Your task to perform on an android device: How much does a 3 bedroom apartment rent for in Austin? Image 0: 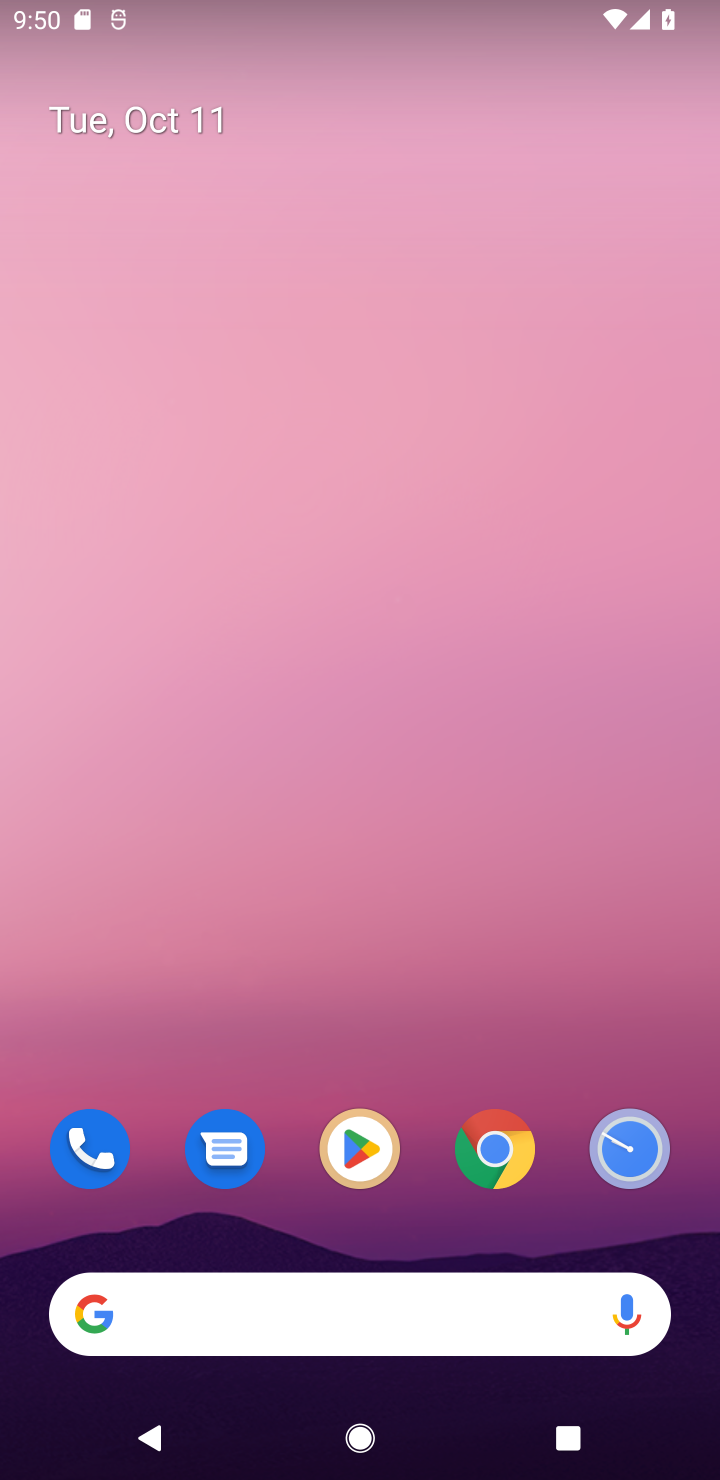
Step 0: drag from (379, 711) to (318, 263)
Your task to perform on an android device: How much does a 3 bedroom apartment rent for in Austin? Image 1: 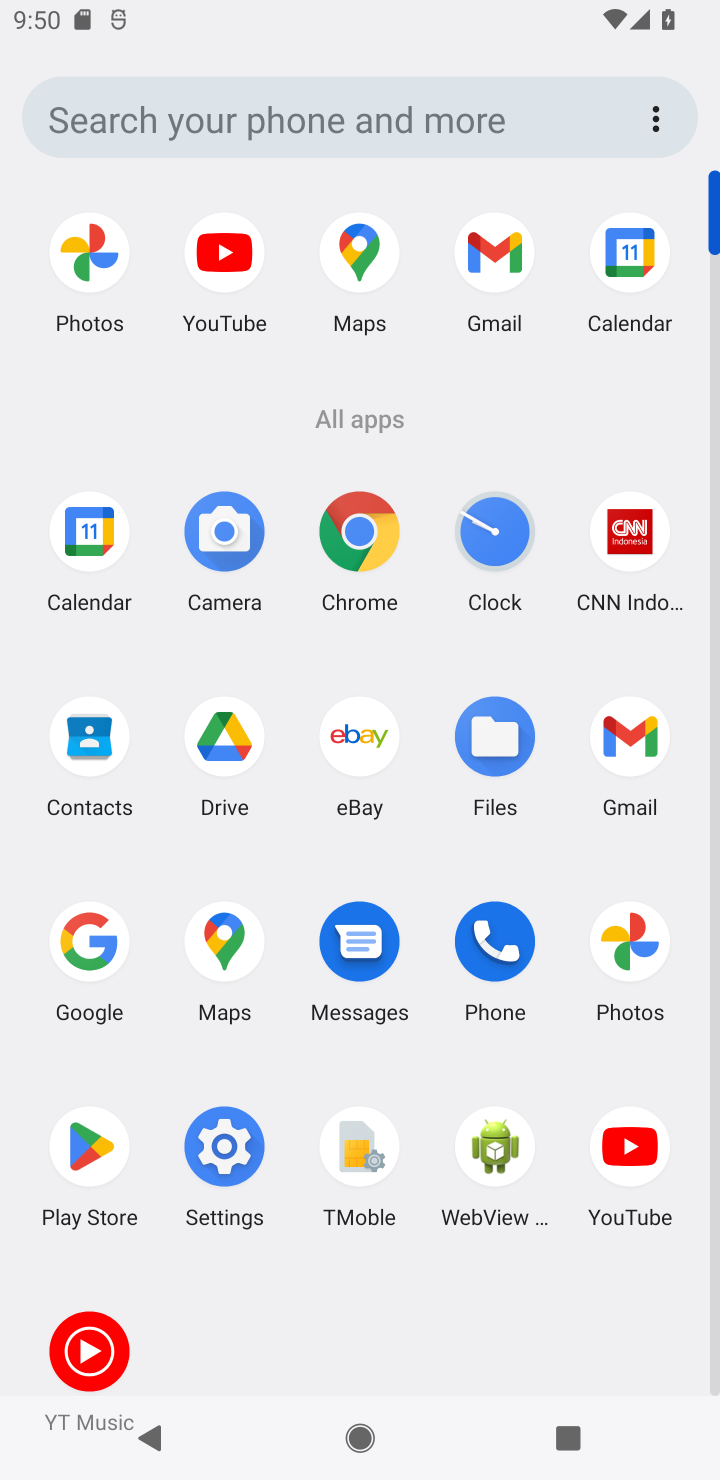
Step 1: click (100, 940)
Your task to perform on an android device: How much does a 3 bedroom apartment rent for in Austin? Image 2: 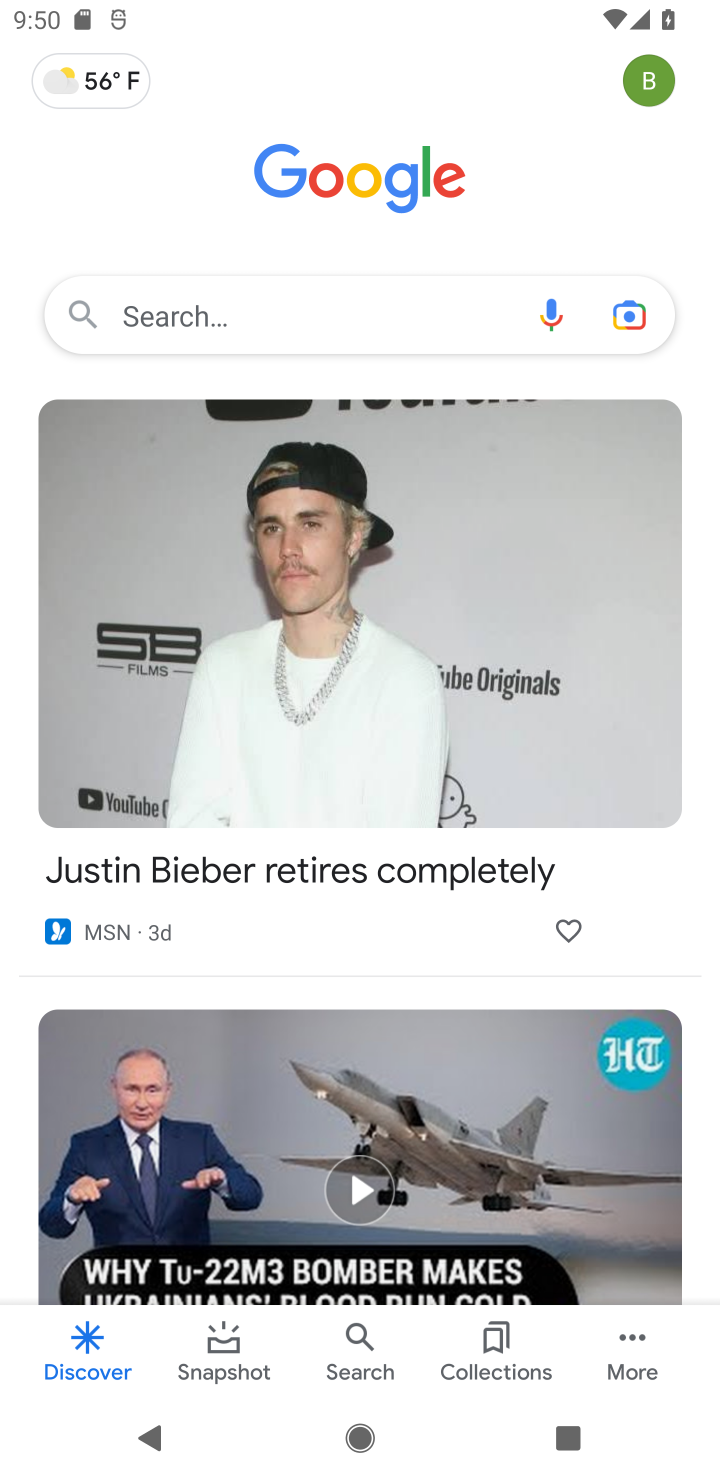
Step 2: click (224, 291)
Your task to perform on an android device: How much does a 3 bedroom apartment rent for in Austin? Image 3: 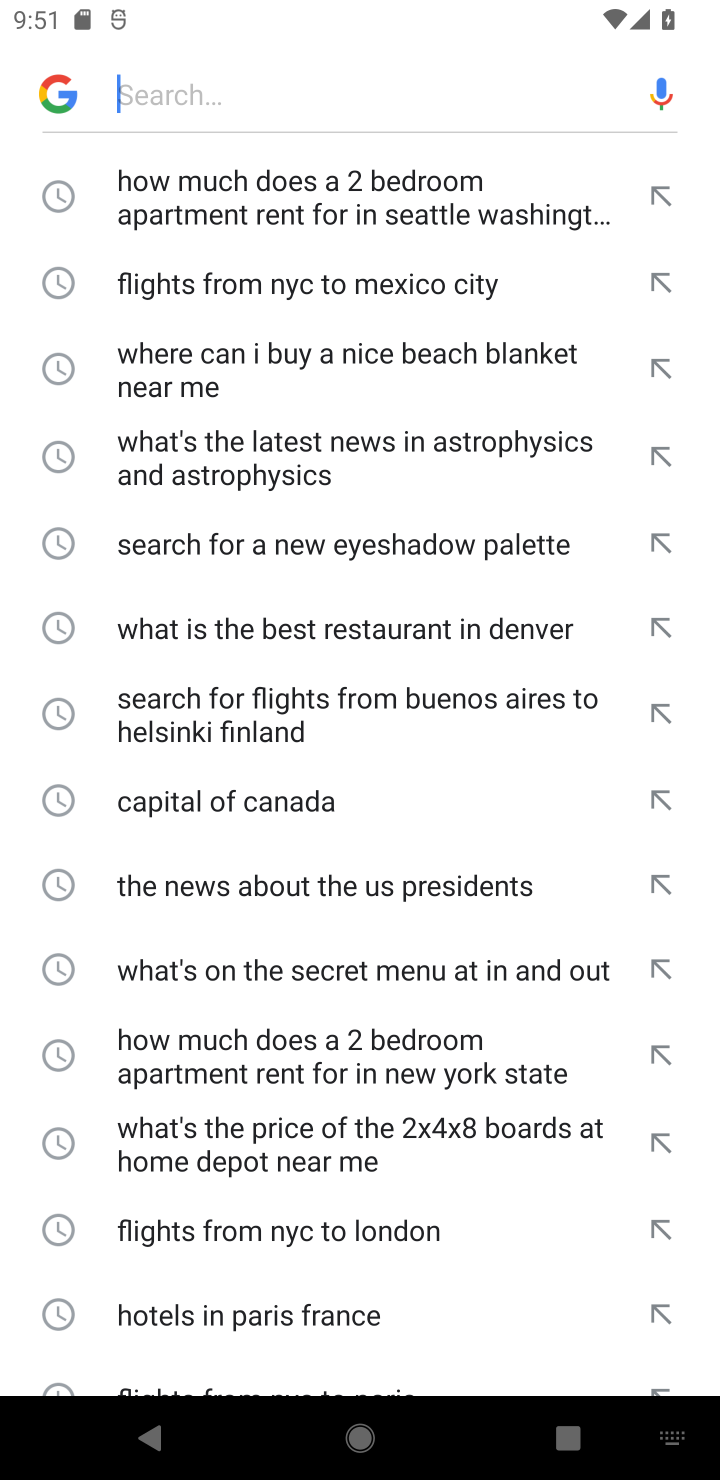
Step 3: type "How much does a 3 bedroom apartment rent for in Austin?"
Your task to perform on an android device: How much does a 3 bedroom apartment rent for in Austin? Image 4: 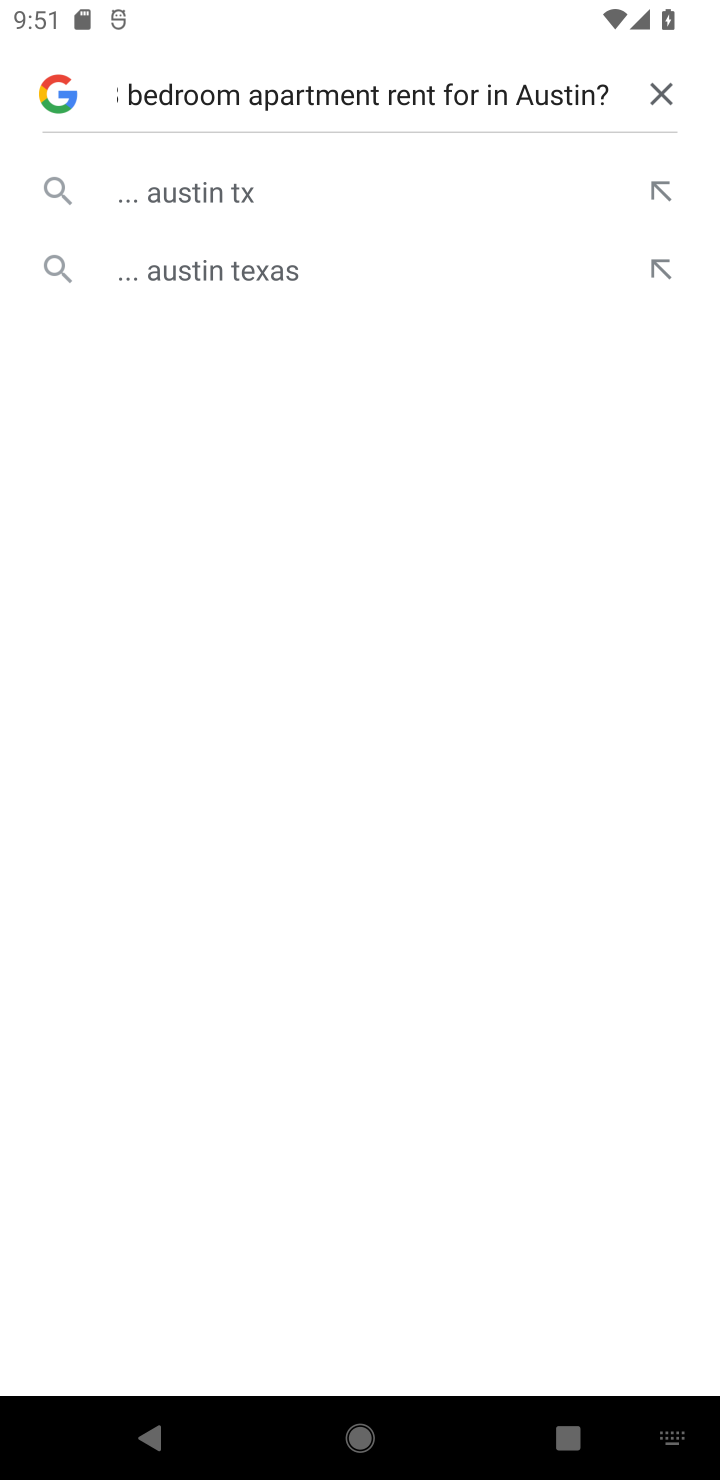
Step 4: click (246, 271)
Your task to perform on an android device: How much does a 3 bedroom apartment rent for in Austin? Image 5: 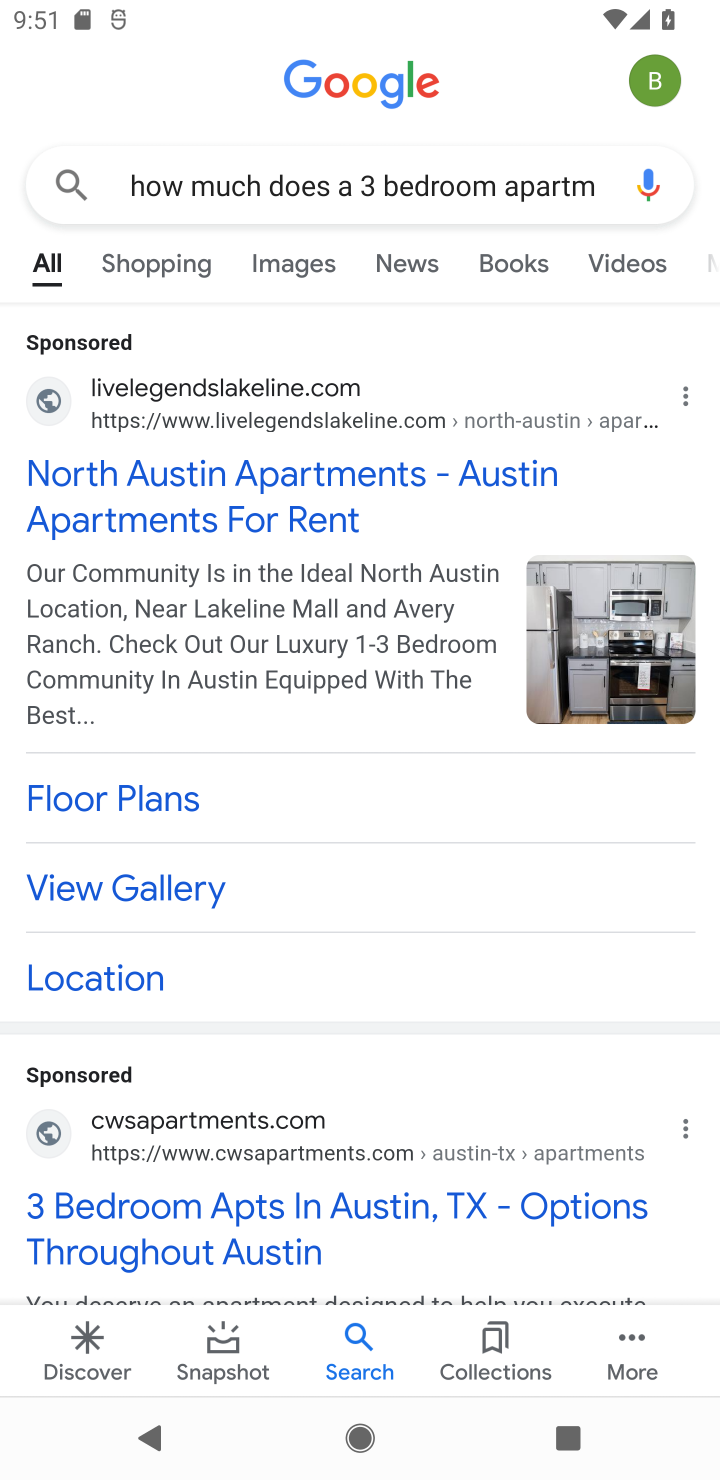
Step 5: task complete